Your task to perform on an android device: Open notification settings Image 0: 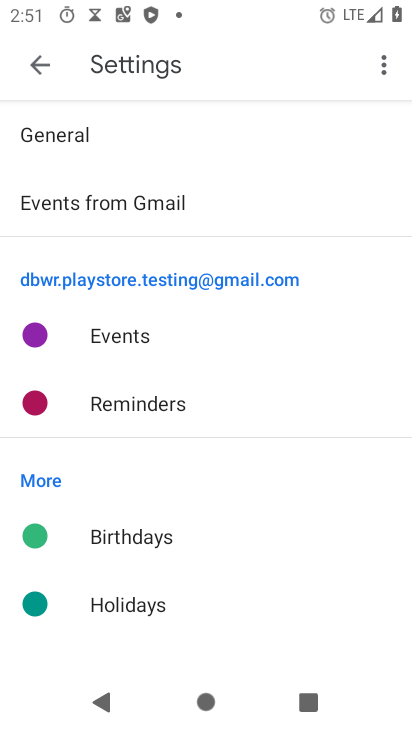
Step 0: press back button
Your task to perform on an android device: Open notification settings Image 1: 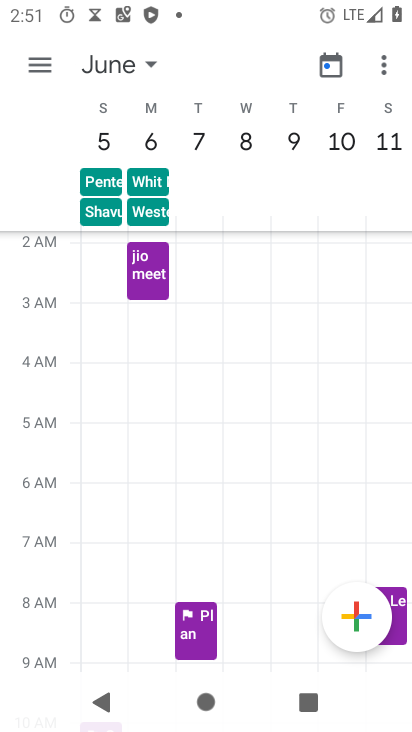
Step 1: press back button
Your task to perform on an android device: Open notification settings Image 2: 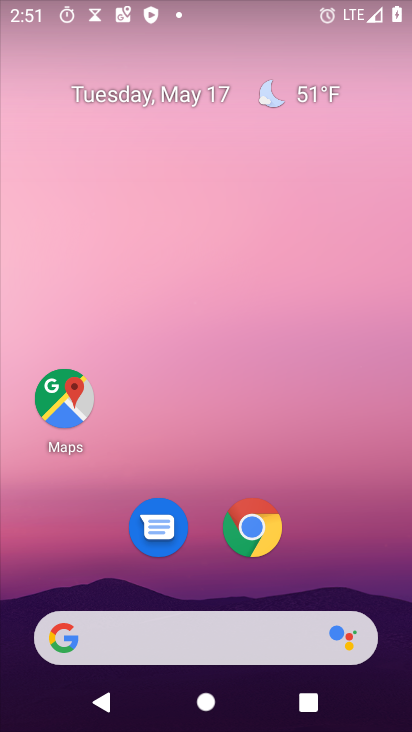
Step 2: drag from (345, 546) to (249, 151)
Your task to perform on an android device: Open notification settings Image 3: 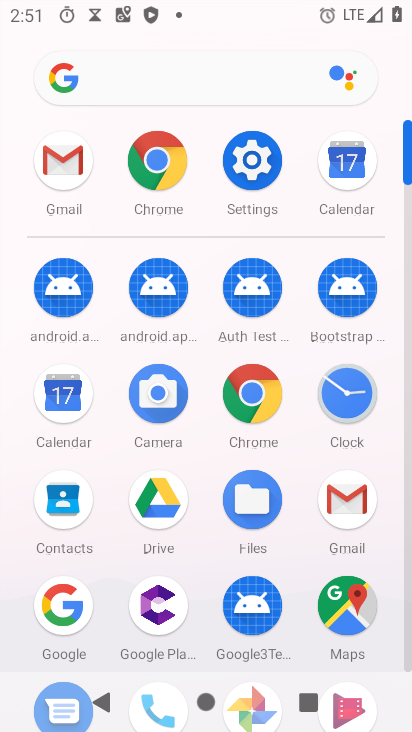
Step 3: click (252, 159)
Your task to perform on an android device: Open notification settings Image 4: 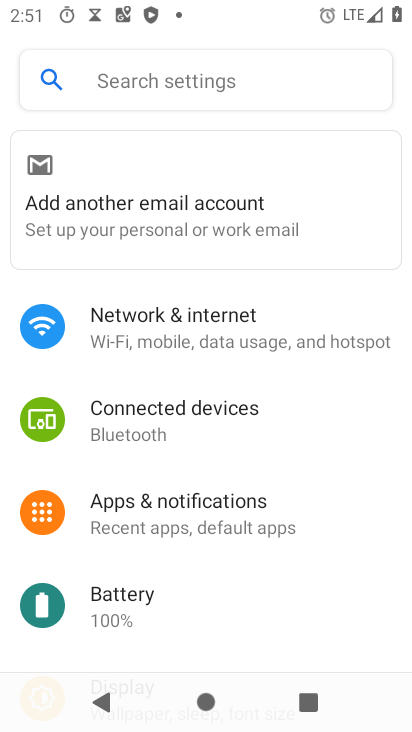
Step 4: drag from (170, 384) to (204, 314)
Your task to perform on an android device: Open notification settings Image 5: 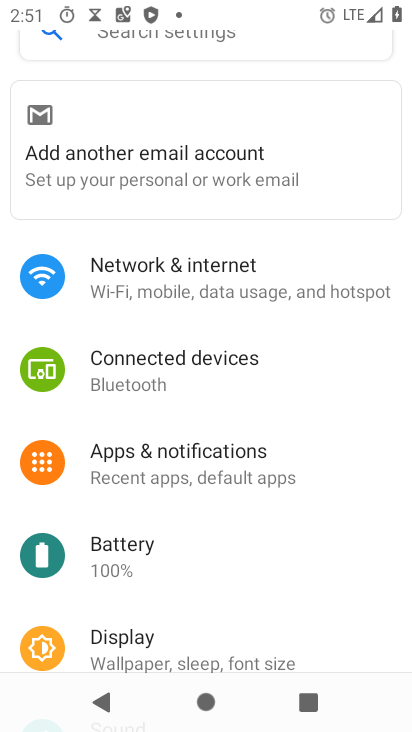
Step 5: click (178, 443)
Your task to perform on an android device: Open notification settings Image 6: 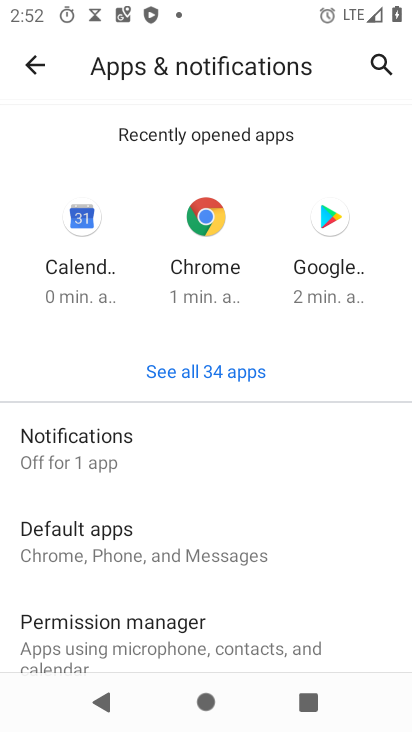
Step 6: click (79, 424)
Your task to perform on an android device: Open notification settings Image 7: 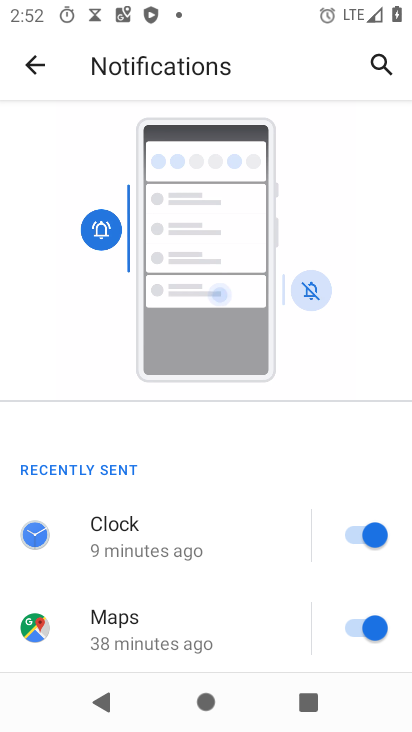
Step 7: task complete